Your task to perform on an android device: Go to eBay Image 0: 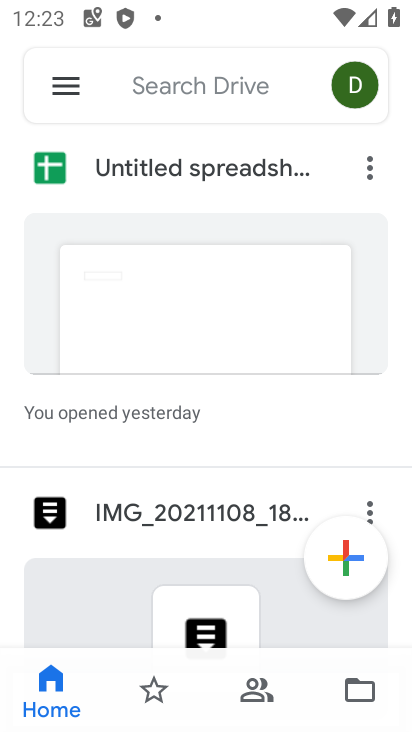
Step 0: press home button
Your task to perform on an android device: Go to eBay Image 1: 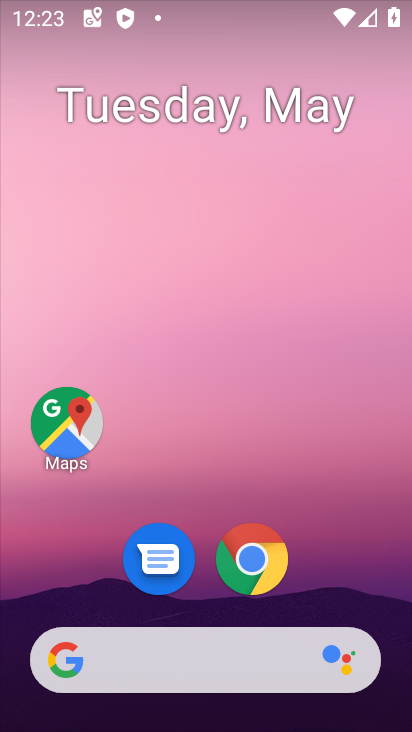
Step 1: click (217, 678)
Your task to perform on an android device: Go to eBay Image 2: 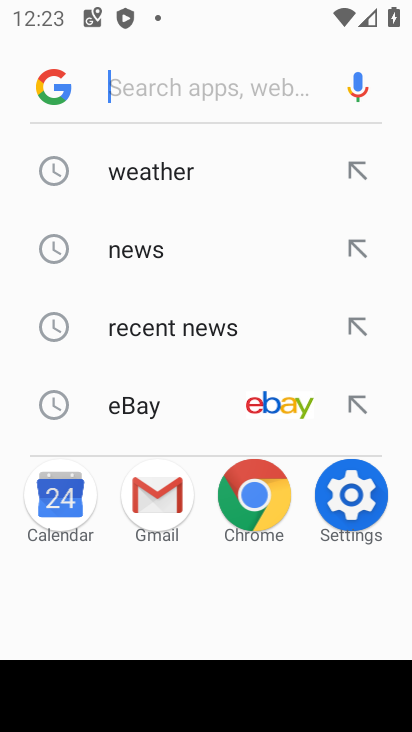
Step 2: click (177, 378)
Your task to perform on an android device: Go to eBay Image 3: 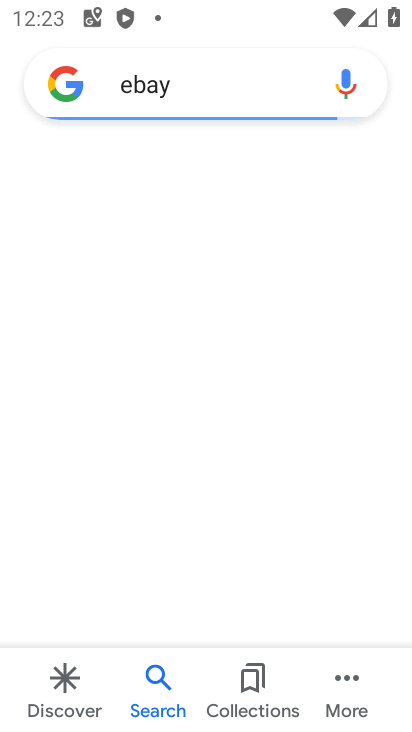
Step 3: task complete